Your task to perform on an android device: open a bookmark in the chrome app Image 0: 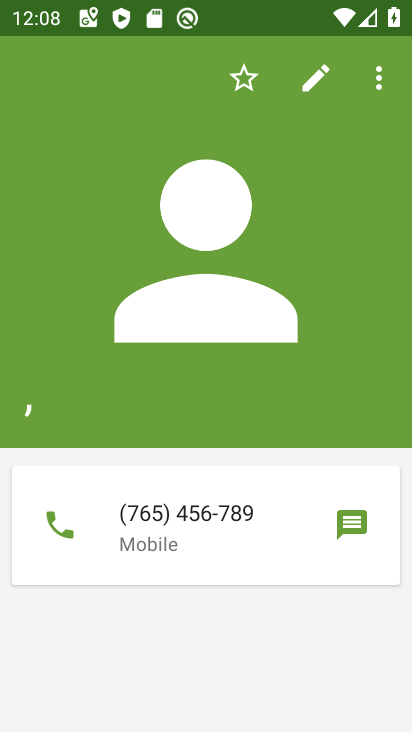
Step 0: press home button
Your task to perform on an android device: open a bookmark in the chrome app Image 1: 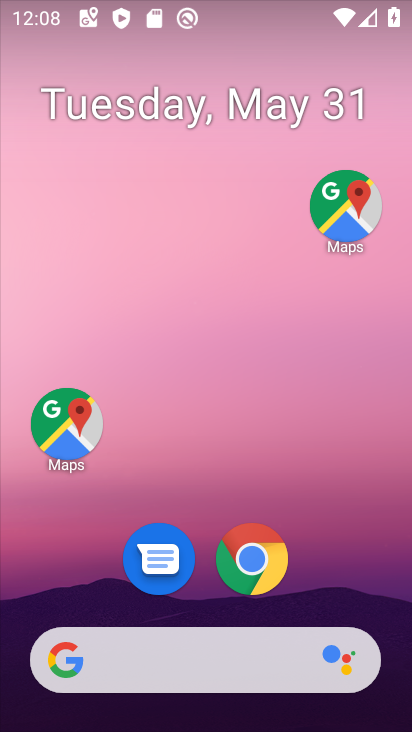
Step 1: click (249, 563)
Your task to perform on an android device: open a bookmark in the chrome app Image 2: 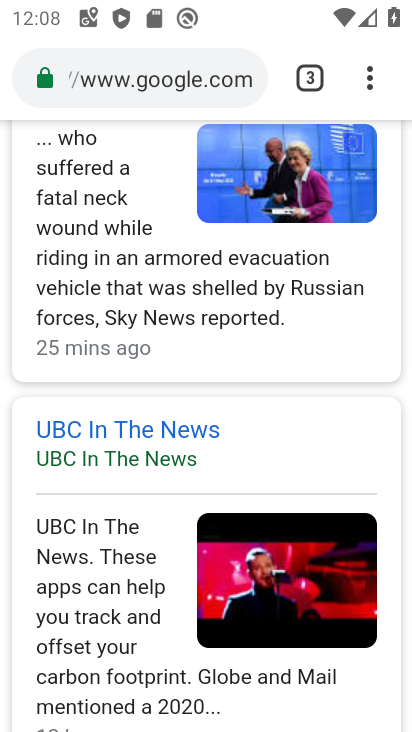
Step 2: drag from (371, 85) to (167, 299)
Your task to perform on an android device: open a bookmark in the chrome app Image 3: 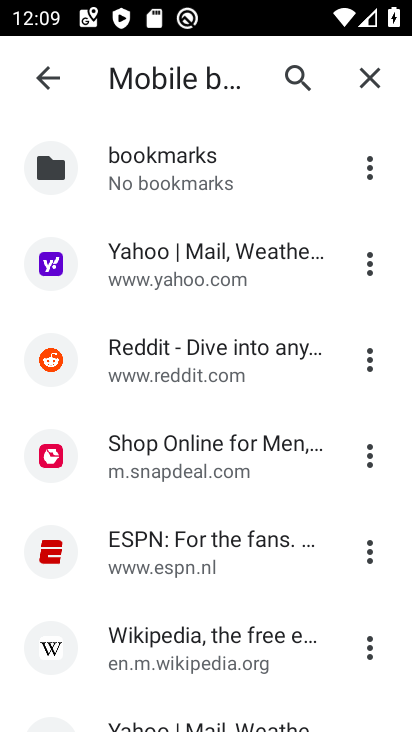
Step 3: click (213, 255)
Your task to perform on an android device: open a bookmark in the chrome app Image 4: 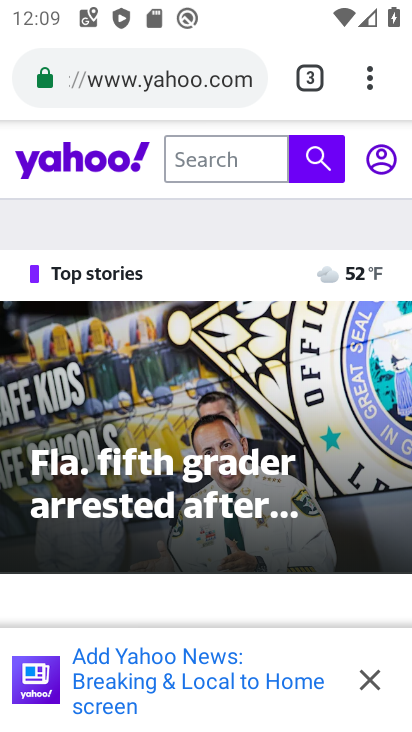
Step 4: task complete